Your task to perform on an android device: Toggle the flashlight Image 0: 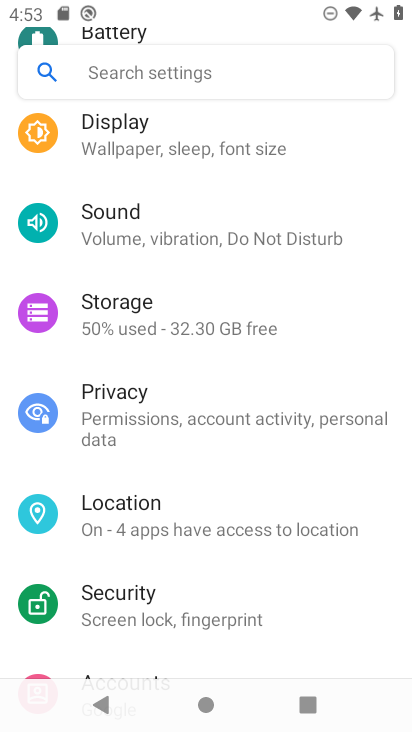
Step 0: press home button
Your task to perform on an android device: Toggle the flashlight Image 1: 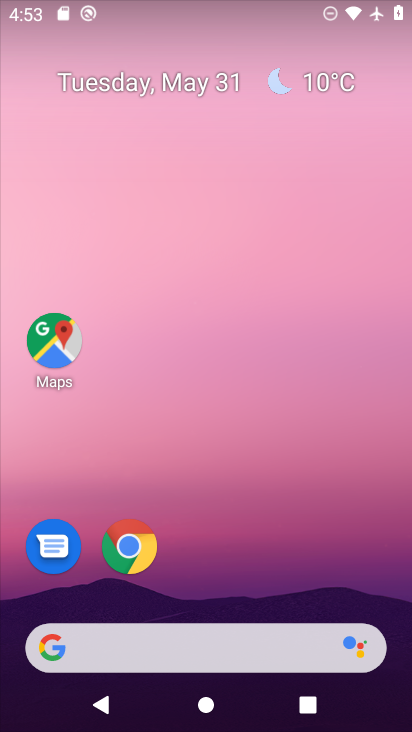
Step 1: task complete